Your task to perform on an android device: Open network settings Image 0: 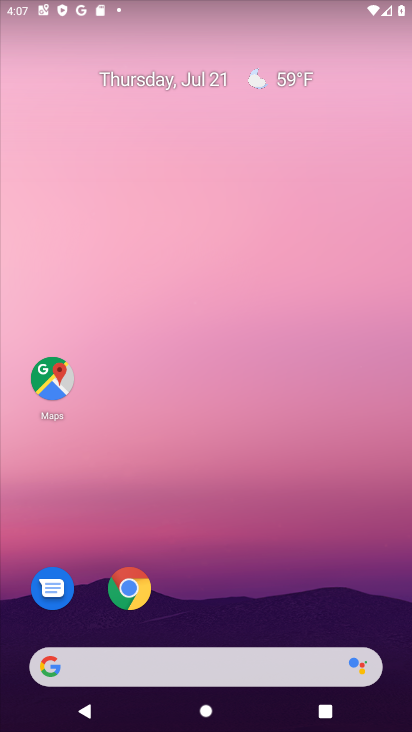
Step 0: drag from (244, 727) to (241, 121)
Your task to perform on an android device: Open network settings Image 1: 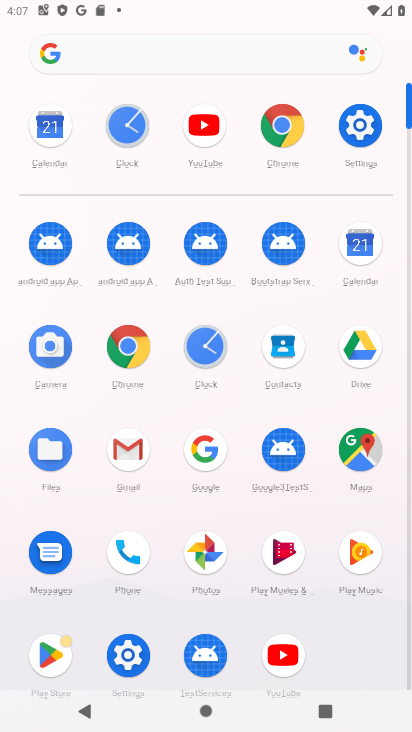
Step 1: click (366, 125)
Your task to perform on an android device: Open network settings Image 2: 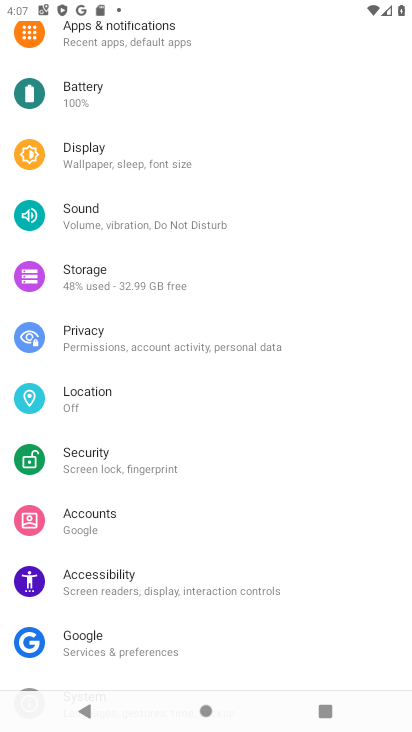
Step 2: drag from (196, 114) to (208, 645)
Your task to perform on an android device: Open network settings Image 3: 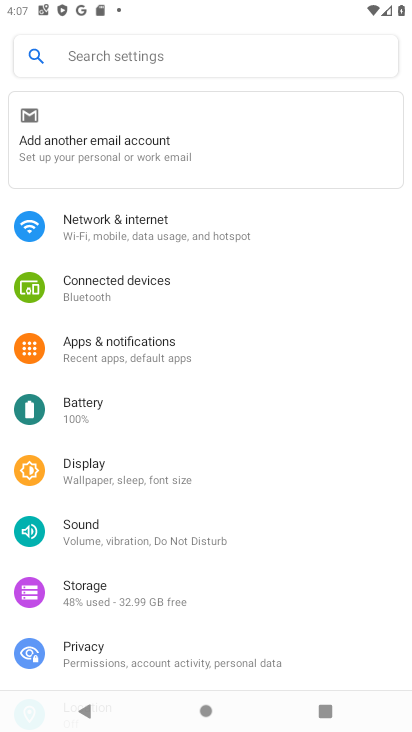
Step 3: click (166, 234)
Your task to perform on an android device: Open network settings Image 4: 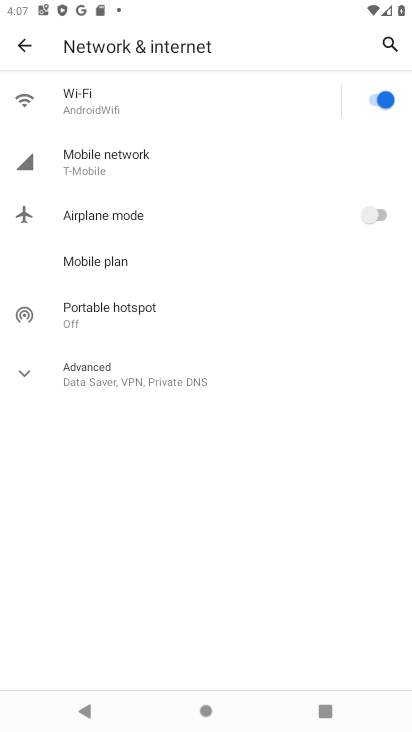
Step 4: task complete